Your task to perform on an android device: Show me popular games on the Play Store Image 0: 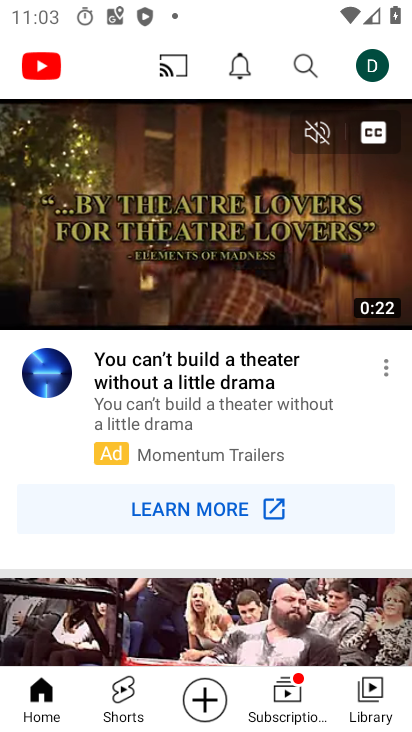
Step 0: press back button
Your task to perform on an android device: Show me popular games on the Play Store Image 1: 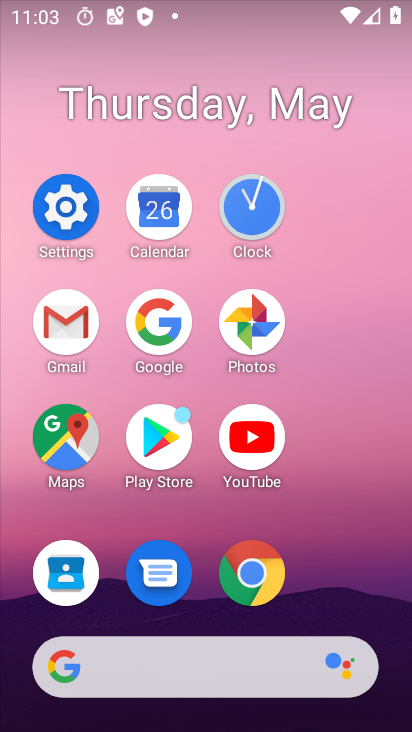
Step 1: click (147, 447)
Your task to perform on an android device: Show me popular games on the Play Store Image 2: 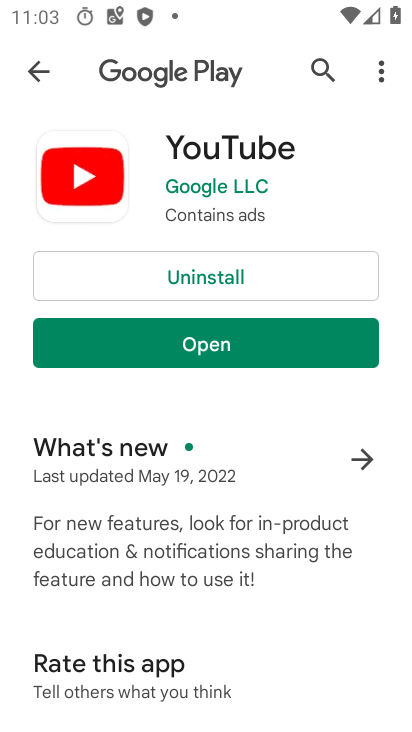
Step 2: click (47, 71)
Your task to perform on an android device: Show me popular games on the Play Store Image 3: 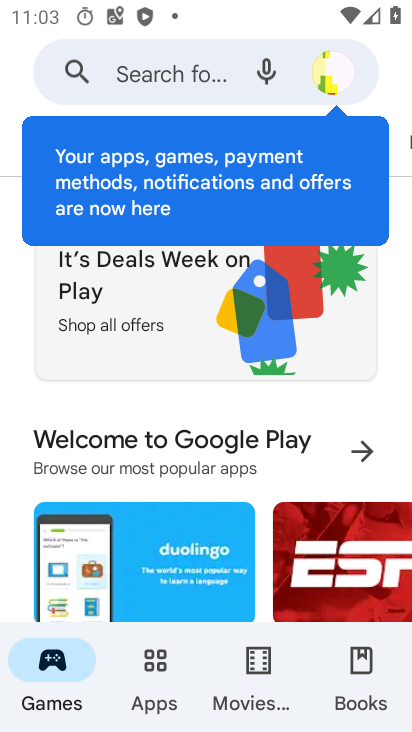
Step 3: drag from (203, 510) to (156, 179)
Your task to perform on an android device: Show me popular games on the Play Store Image 4: 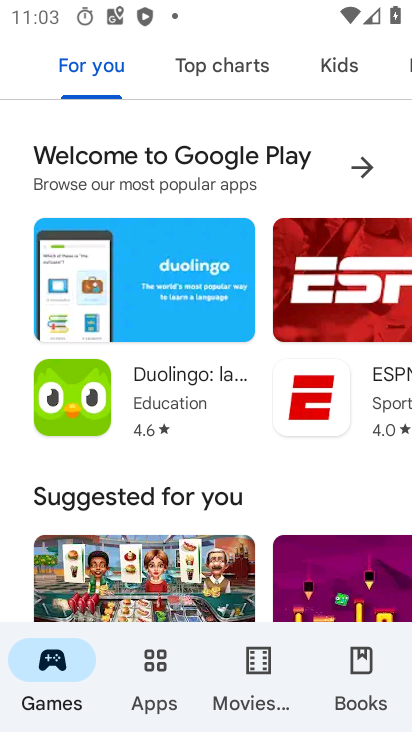
Step 4: drag from (206, 550) to (243, 242)
Your task to perform on an android device: Show me popular games on the Play Store Image 5: 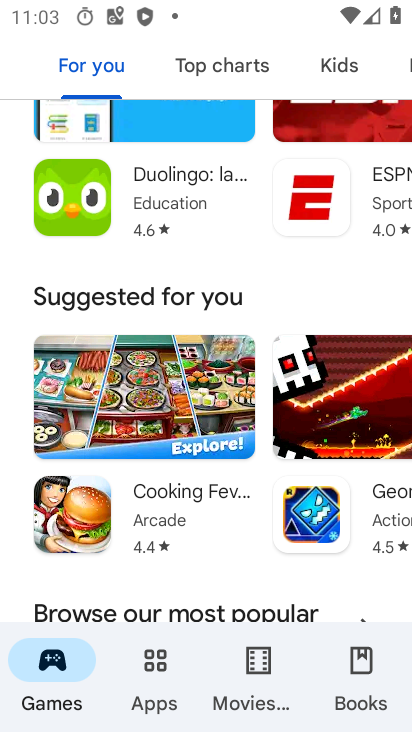
Step 5: drag from (232, 522) to (224, 272)
Your task to perform on an android device: Show me popular games on the Play Store Image 6: 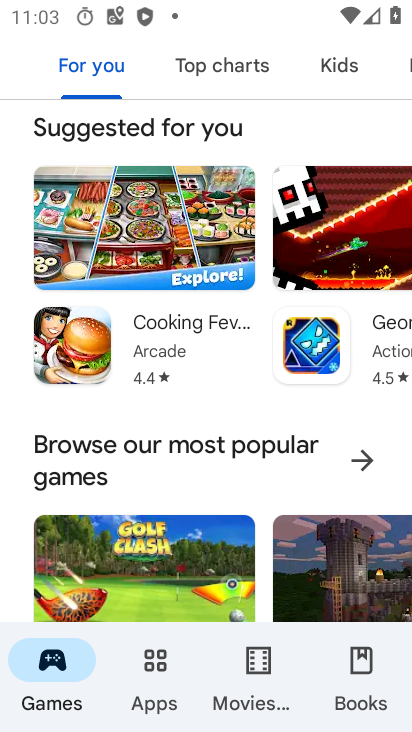
Step 6: click (291, 447)
Your task to perform on an android device: Show me popular games on the Play Store Image 7: 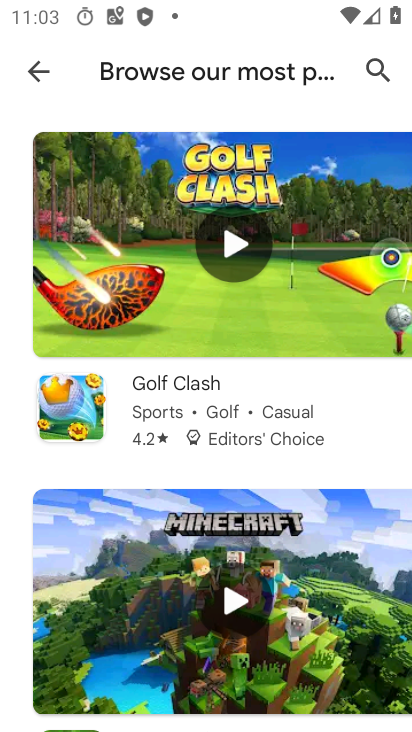
Step 7: task complete